Your task to perform on an android device: toggle improve location accuracy Image 0: 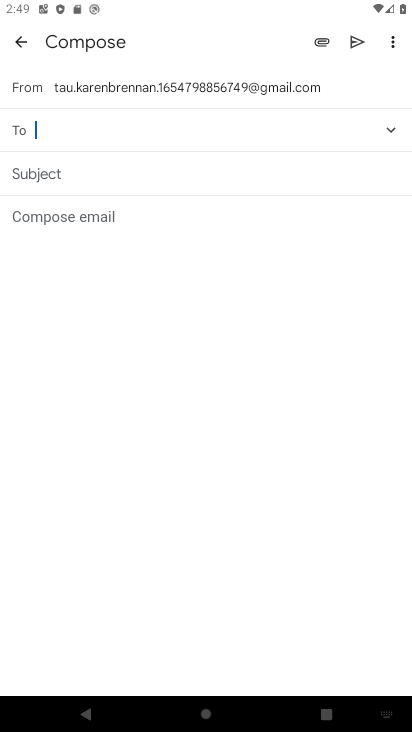
Step 0: press home button
Your task to perform on an android device: toggle improve location accuracy Image 1: 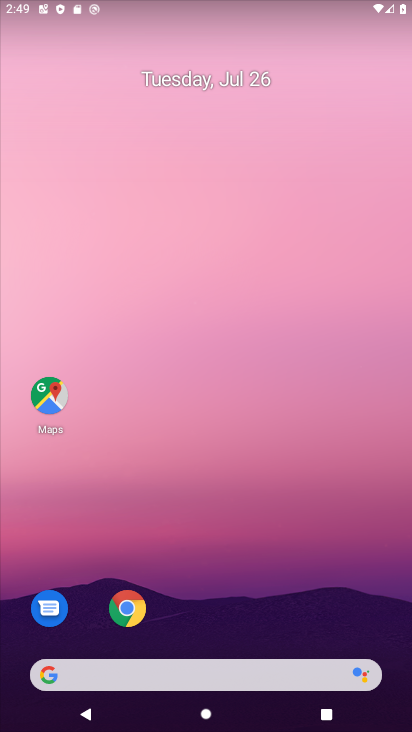
Step 1: drag from (292, 655) to (276, 1)
Your task to perform on an android device: toggle improve location accuracy Image 2: 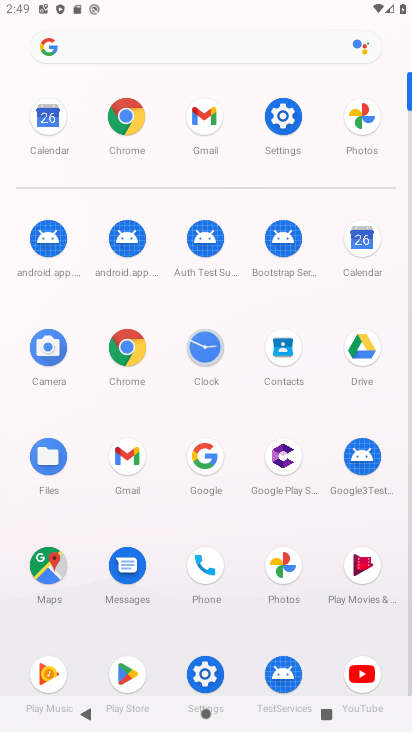
Step 2: click (286, 146)
Your task to perform on an android device: toggle improve location accuracy Image 3: 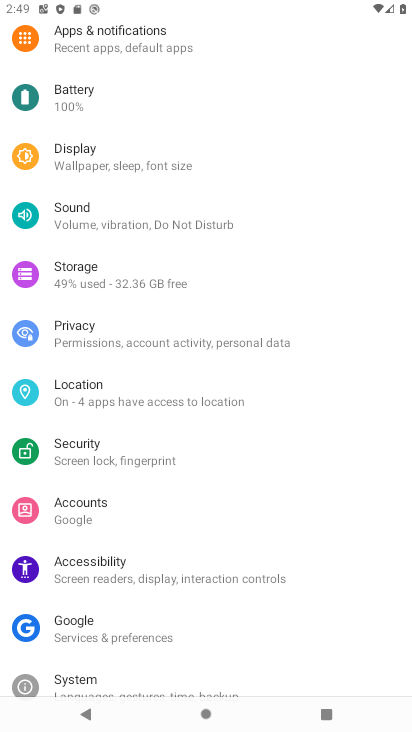
Step 3: task complete